Your task to perform on an android device: Is it going to rain this weekend? Image 0: 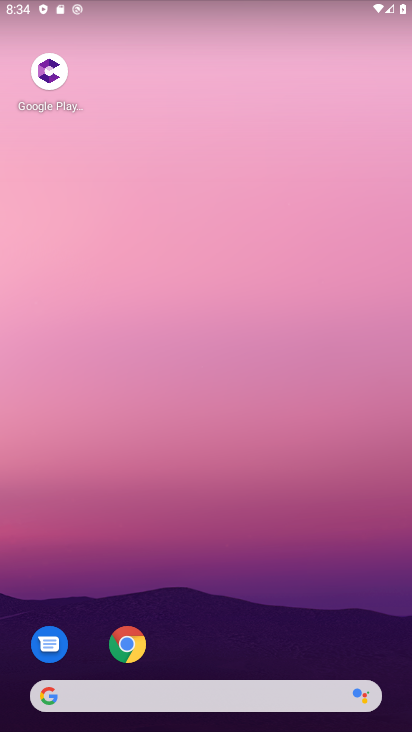
Step 0: drag from (180, 633) to (185, 46)
Your task to perform on an android device: Is it going to rain this weekend? Image 1: 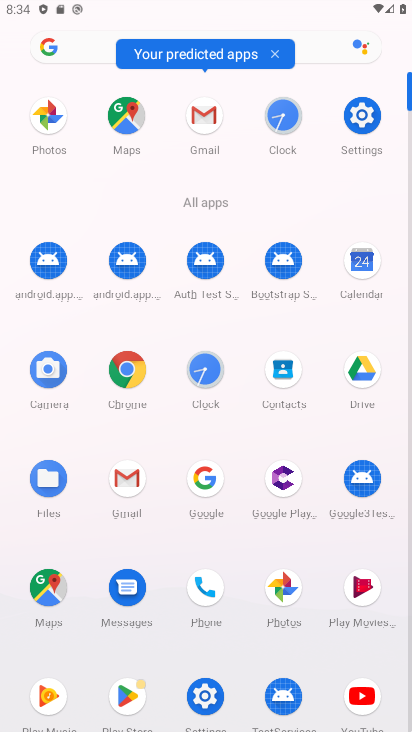
Step 1: click (213, 480)
Your task to perform on an android device: Is it going to rain this weekend? Image 2: 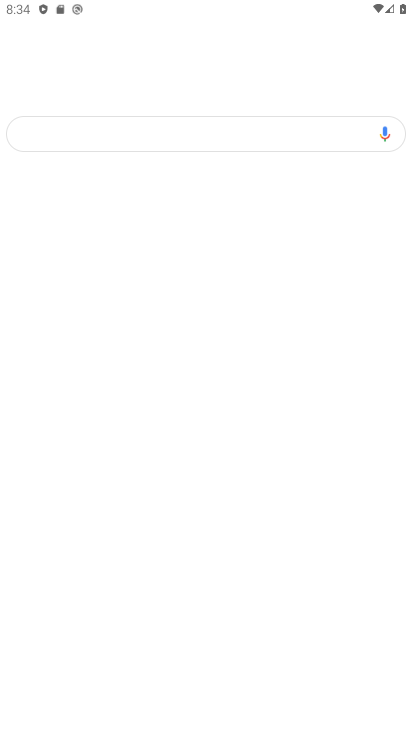
Step 2: click (200, 478)
Your task to perform on an android device: Is it going to rain this weekend? Image 3: 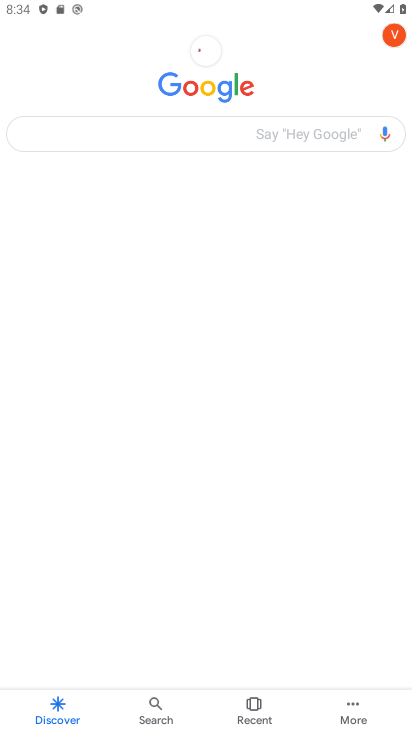
Step 3: click (114, 138)
Your task to perform on an android device: Is it going to rain this weekend? Image 4: 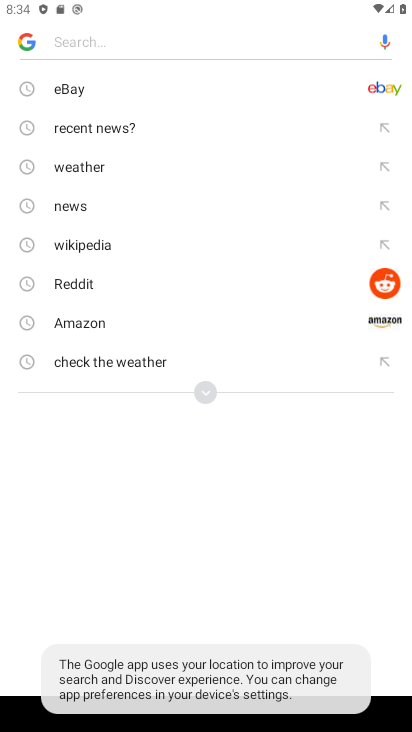
Step 4: click (206, 399)
Your task to perform on an android device: Is it going to rain this weekend? Image 5: 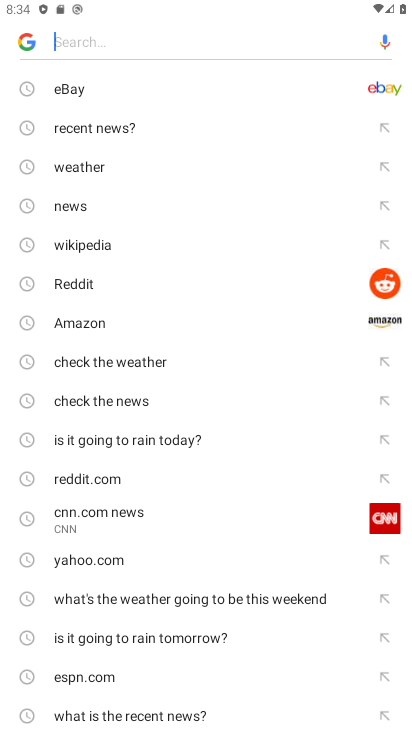
Step 5: click (186, 596)
Your task to perform on an android device: Is it going to rain this weekend? Image 6: 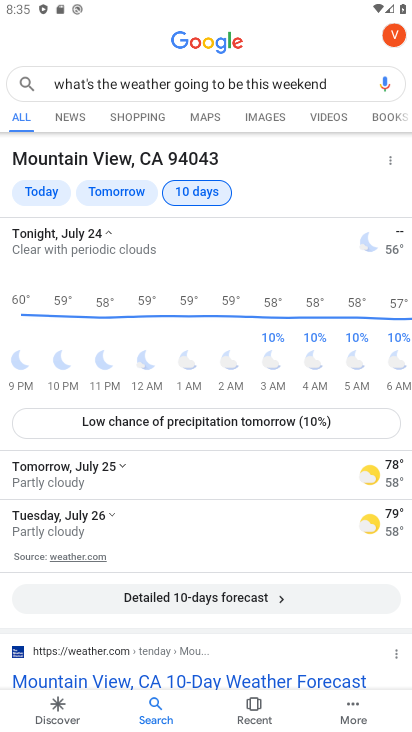
Step 6: task complete